Your task to perform on an android device: Open display settings Image 0: 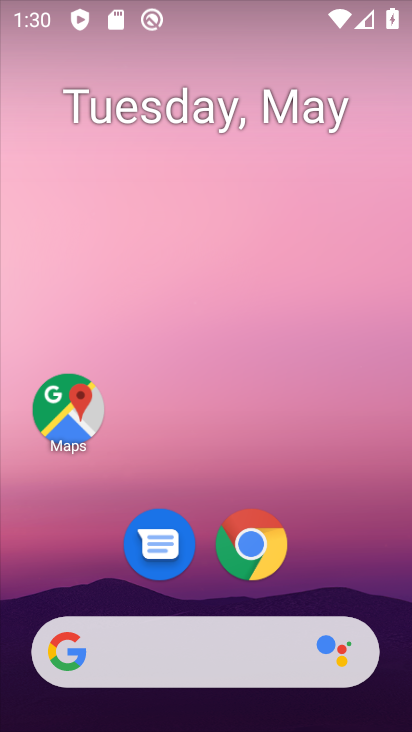
Step 0: drag from (321, 568) to (324, 100)
Your task to perform on an android device: Open display settings Image 1: 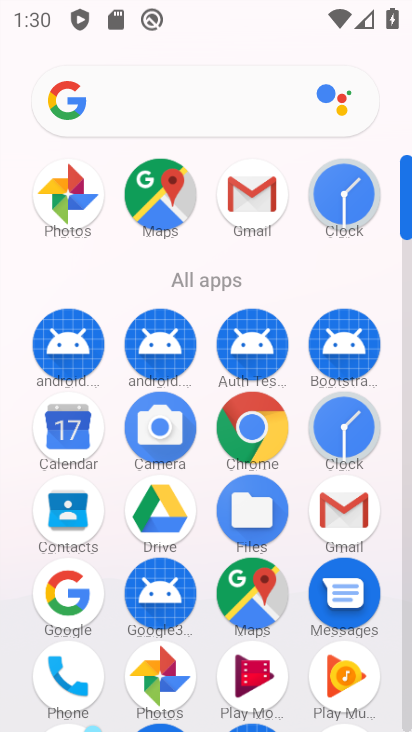
Step 1: drag from (189, 624) to (289, 199)
Your task to perform on an android device: Open display settings Image 2: 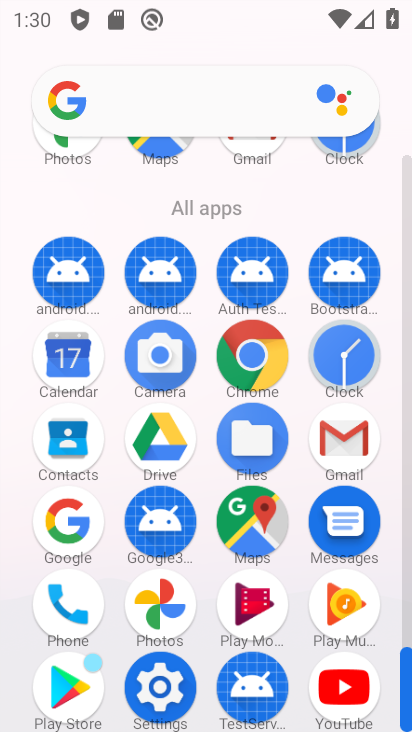
Step 2: click (158, 683)
Your task to perform on an android device: Open display settings Image 3: 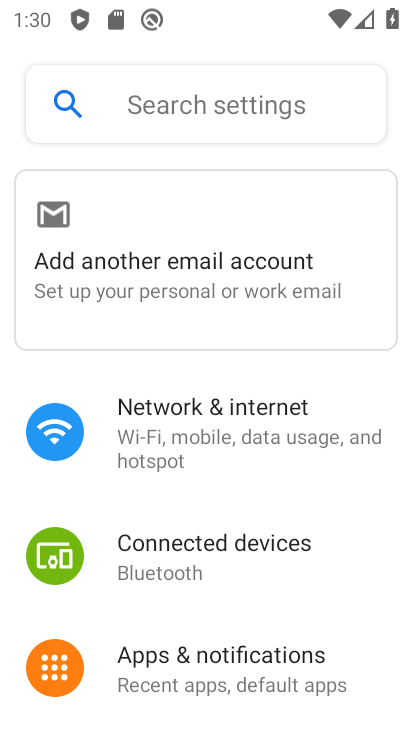
Step 3: drag from (223, 629) to (304, 31)
Your task to perform on an android device: Open display settings Image 4: 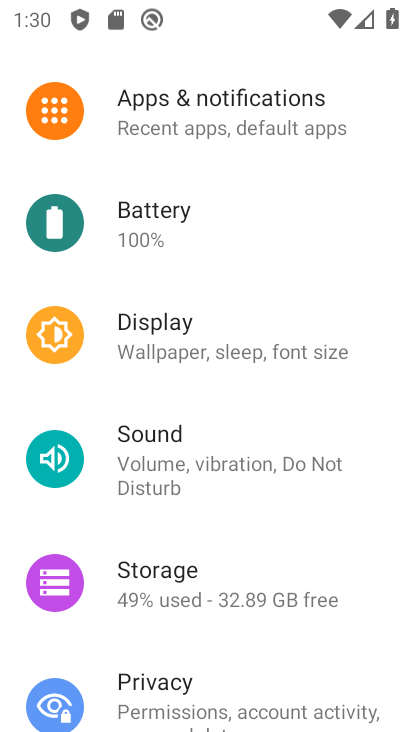
Step 4: drag from (183, 568) to (310, 156)
Your task to perform on an android device: Open display settings Image 5: 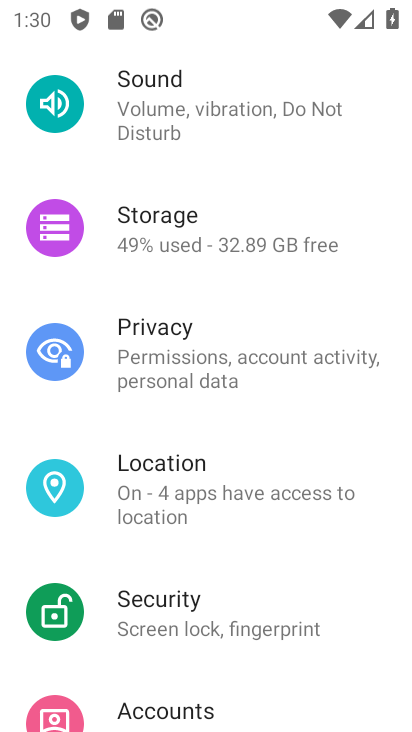
Step 5: drag from (245, 188) to (199, 671)
Your task to perform on an android device: Open display settings Image 6: 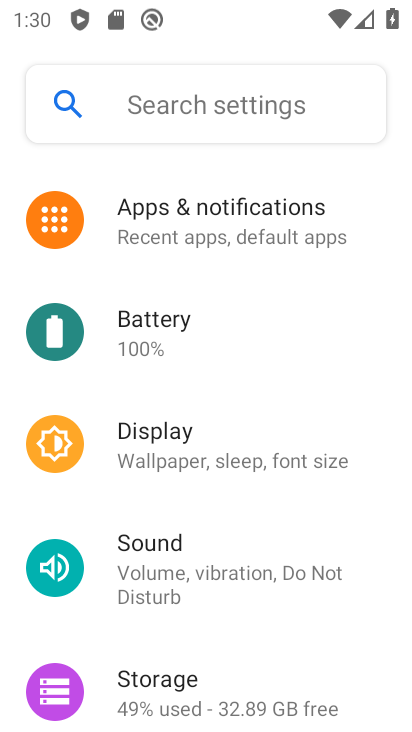
Step 6: drag from (237, 294) to (205, 638)
Your task to perform on an android device: Open display settings Image 7: 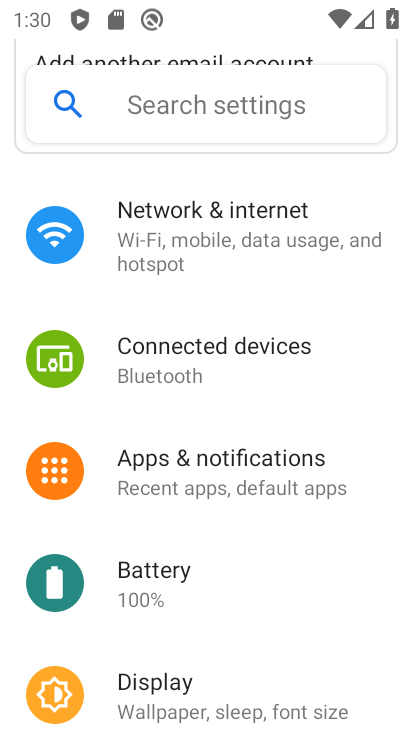
Step 7: drag from (224, 392) to (218, 666)
Your task to perform on an android device: Open display settings Image 8: 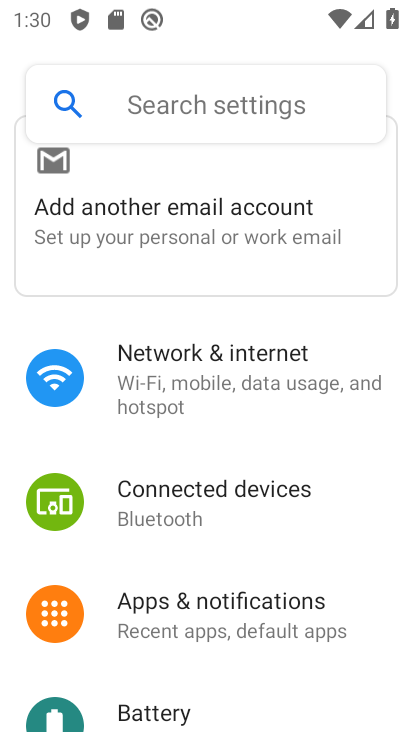
Step 8: drag from (218, 665) to (274, 230)
Your task to perform on an android device: Open display settings Image 9: 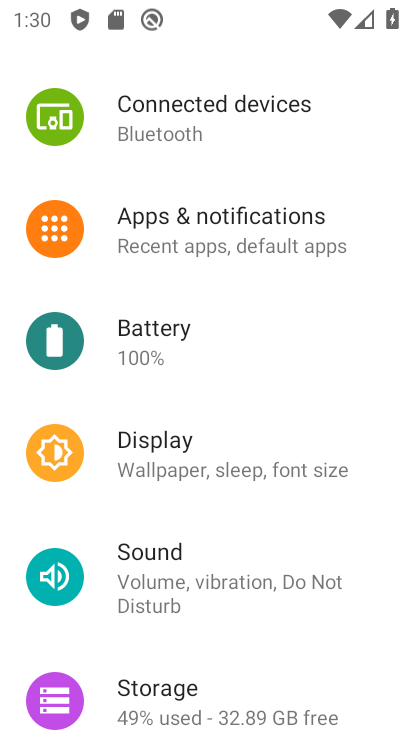
Step 9: drag from (251, 578) to (341, 202)
Your task to perform on an android device: Open display settings Image 10: 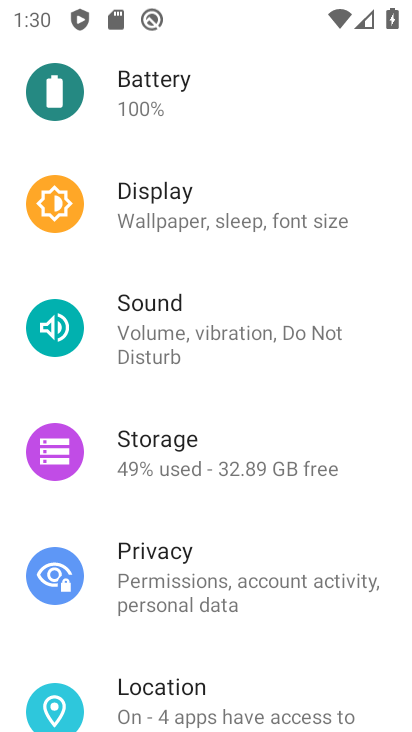
Step 10: click (203, 193)
Your task to perform on an android device: Open display settings Image 11: 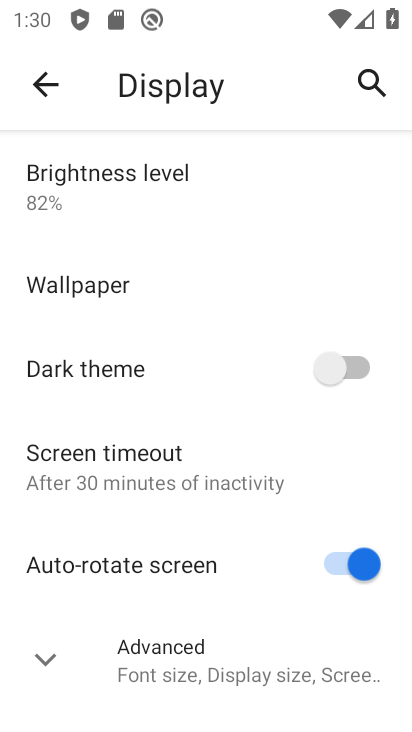
Step 11: task complete